Your task to perform on an android device: Open Youtube and go to the subscriptions tab Image 0: 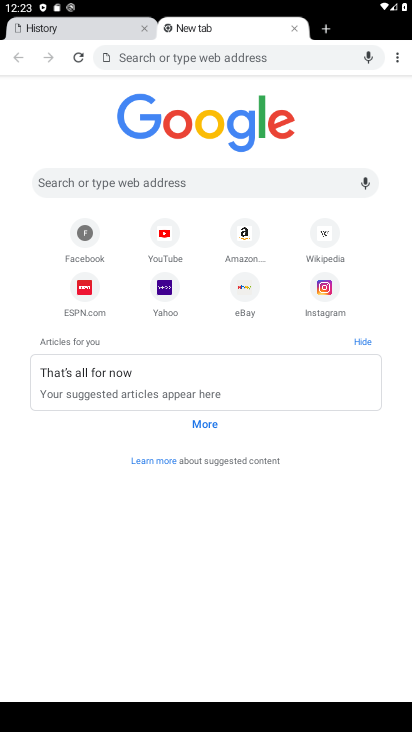
Step 0: press home button
Your task to perform on an android device: Open Youtube and go to the subscriptions tab Image 1: 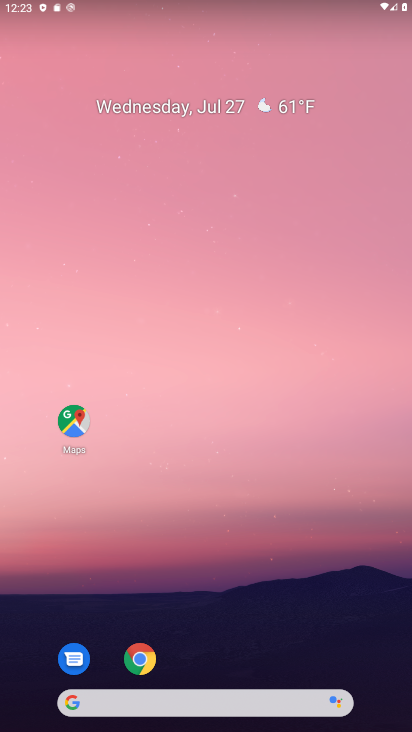
Step 1: drag from (185, 657) to (191, 112)
Your task to perform on an android device: Open Youtube and go to the subscriptions tab Image 2: 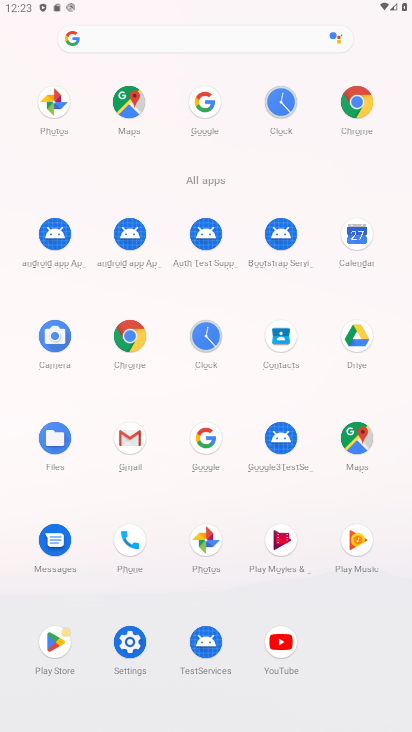
Step 2: click (269, 654)
Your task to perform on an android device: Open Youtube and go to the subscriptions tab Image 3: 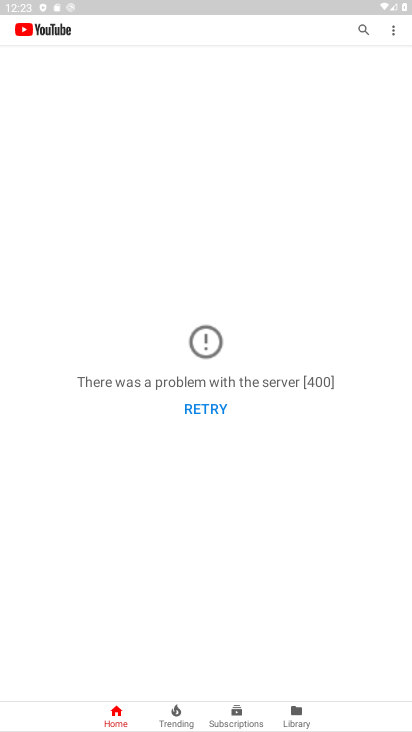
Step 3: click (248, 702)
Your task to perform on an android device: Open Youtube and go to the subscriptions tab Image 4: 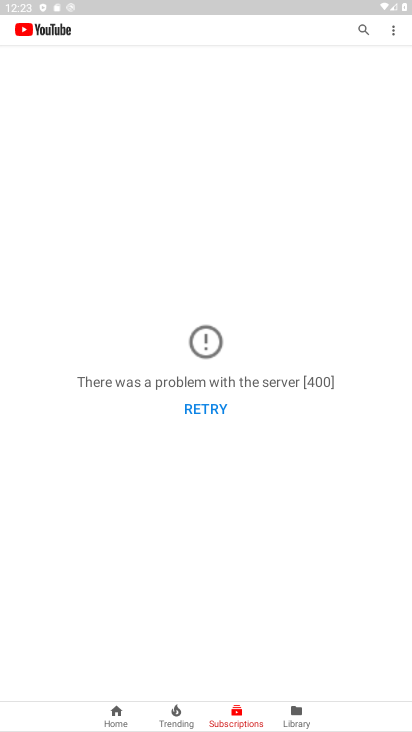
Step 4: task complete